Your task to perform on an android device: turn on translation in the chrome app Image 0: 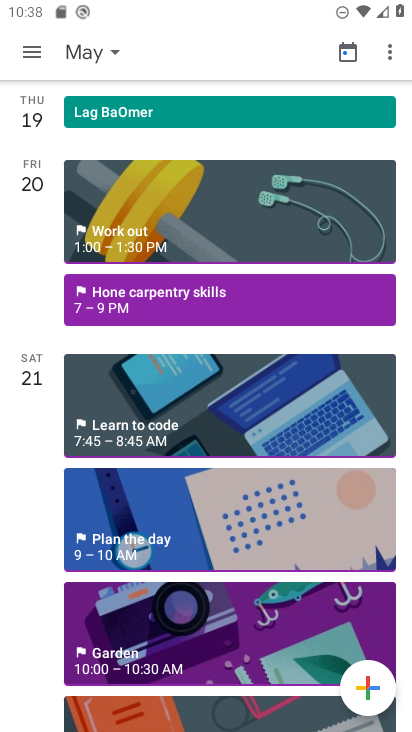
Step 0: press home button
Your task to perform on an android device: turn on translation in the chrome app Image 1: 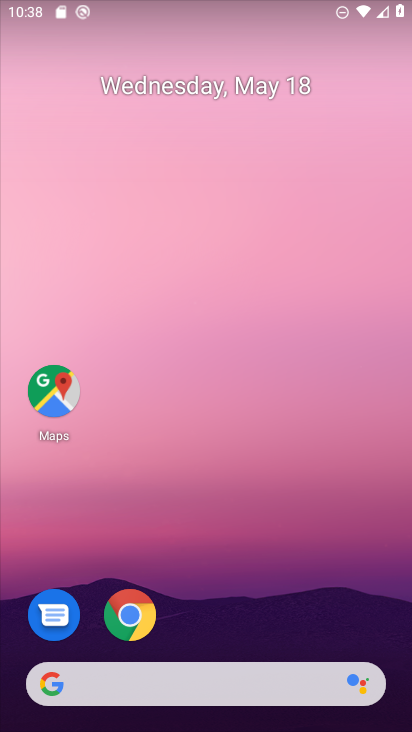
Step 1: click (124, 613)
Your task to perform on an android device: turn on translation in the chrome app Image 2: 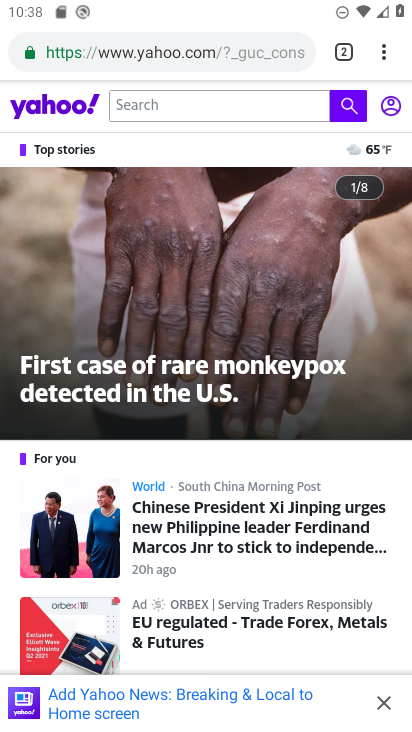
Step 2: click (377, 48)
Your task to perform on an android device: turn on translation in the chrome app Image 3: 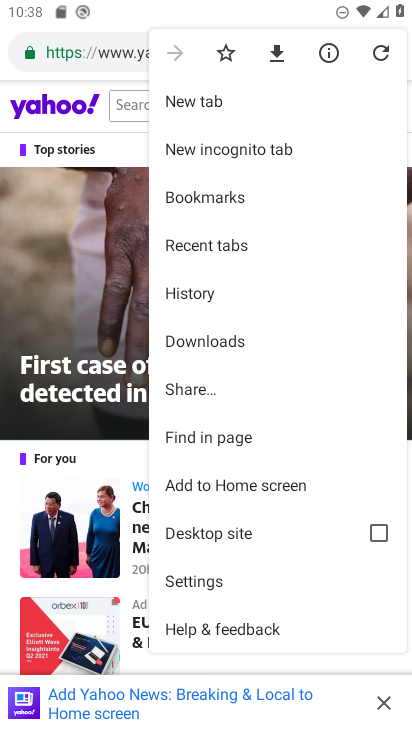
Step 3: click (202, 583)
Your task to perform on an android device: turn on translation in the chrome app Image 4: 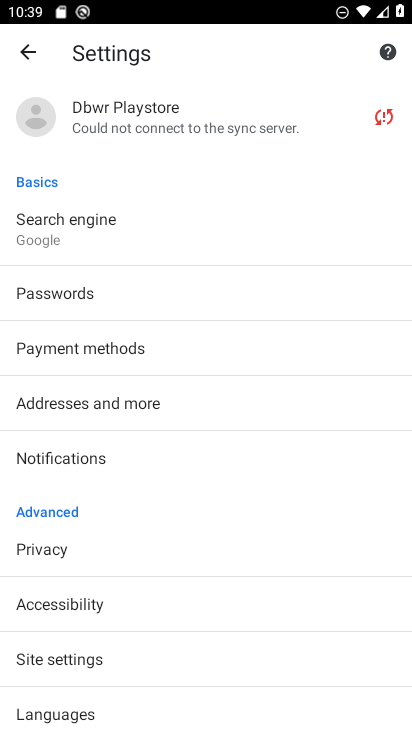
Step 4: click (127, 712)
Your task to perform on an android device: turn on translation in the chrome app Image 5: 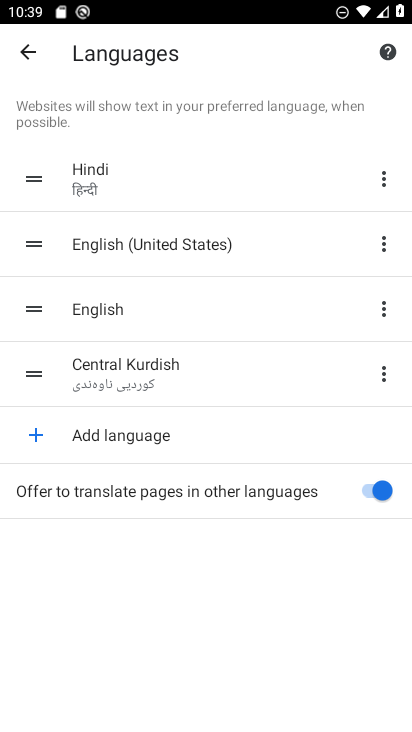
Step 5: task complete